Your task to perform on an android device: change notifications settings Image 0: 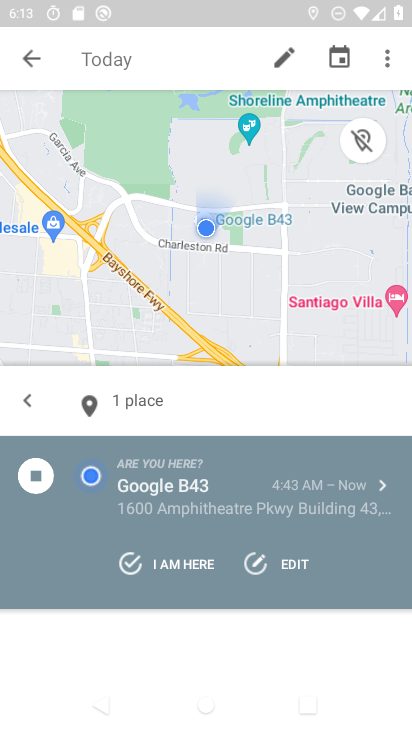
Step 0: press home button
Your task to perform on an android device: change notifications settings Image 1: 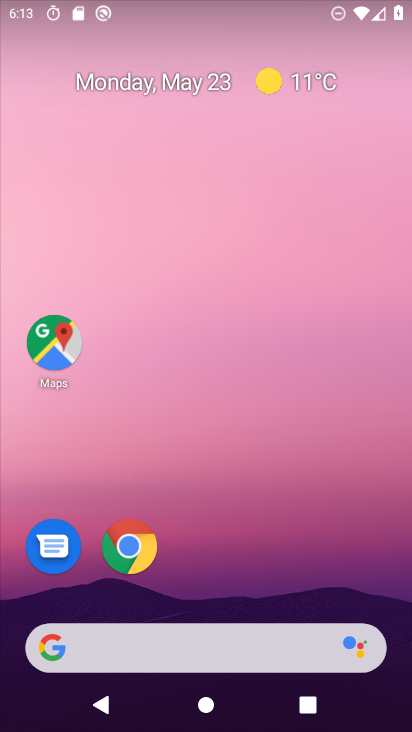
Step 1: drag from (309, 568) to (278, 403)
Your task to perform on an android device: change notifications settings Image 2: 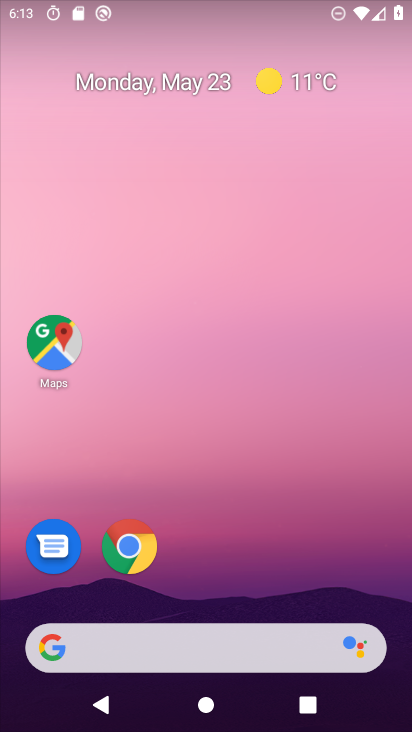
Step 2: drag from (285, 586) to (261, 12)
Your task to perform on an android device: change notifications settings Image 3: 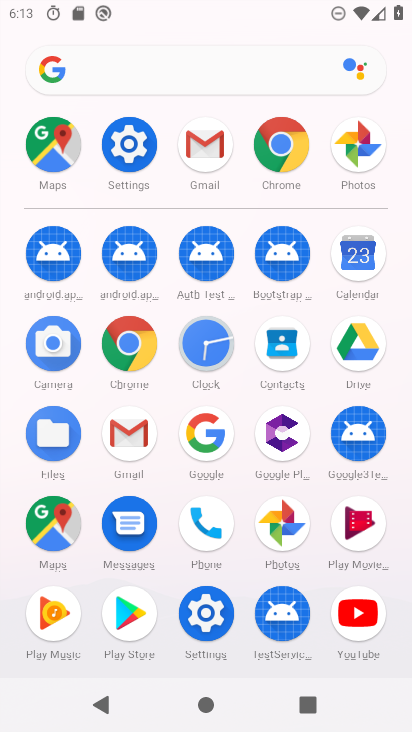
Step 3: click (206, 609)
Your task to perform on an android device: change notifications settings Image 4: 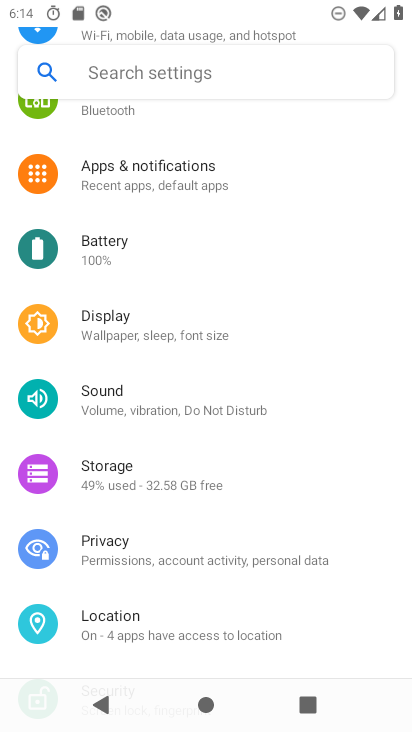
Step 4: click (165, 162)
Your task to perform on an android device: change notifications settings Image 5: 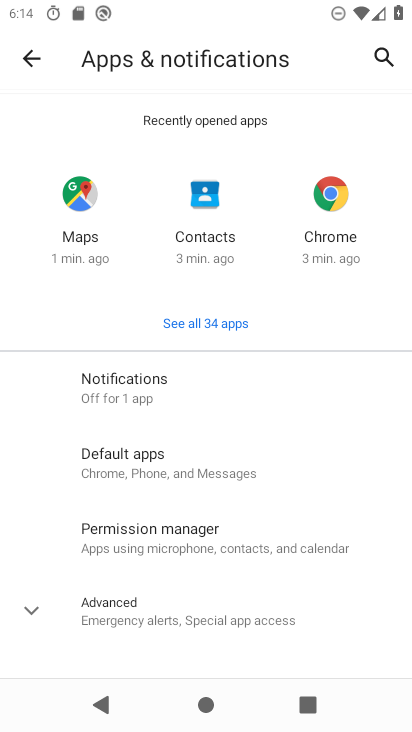
Step 5: click (154, 398)
Your task to perform on an android device: change notifications settings Image 6: 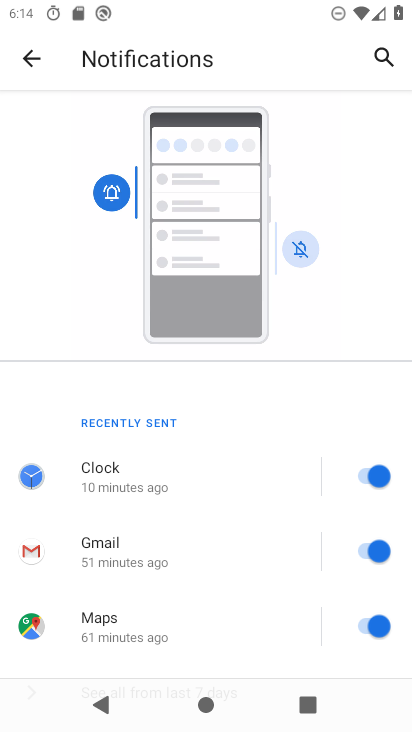
Step 6: click (366, 538)
Your task to perform on an android device: change notifications settings Image 7: 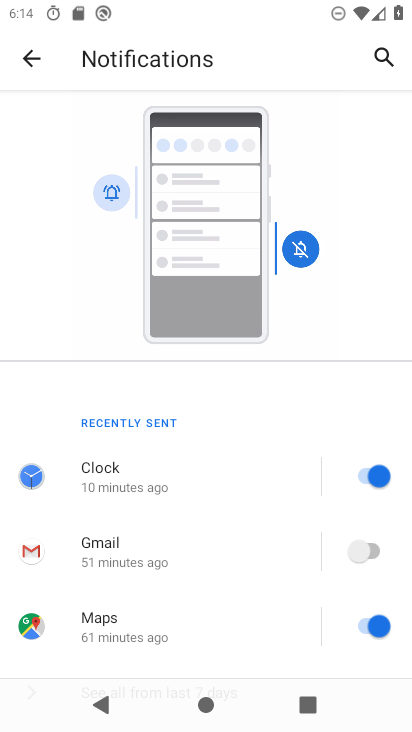
Step 7: task complete